Your task to perform on an android device: Open settings Image 0: 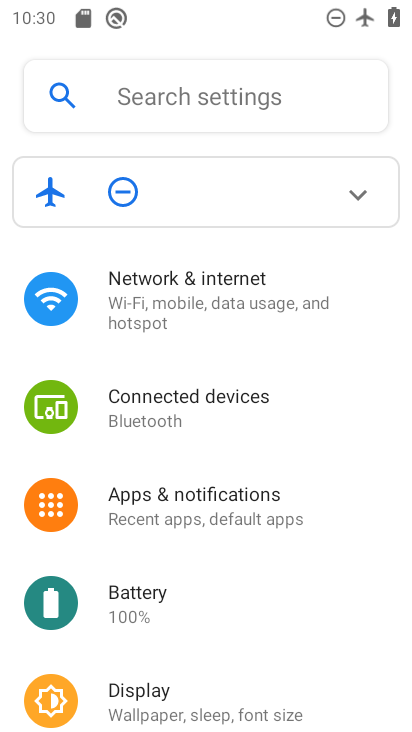
Step 0: drag from (328, 593) to (308, 379)
Your task to perform on an android device: Open settings Image 1: 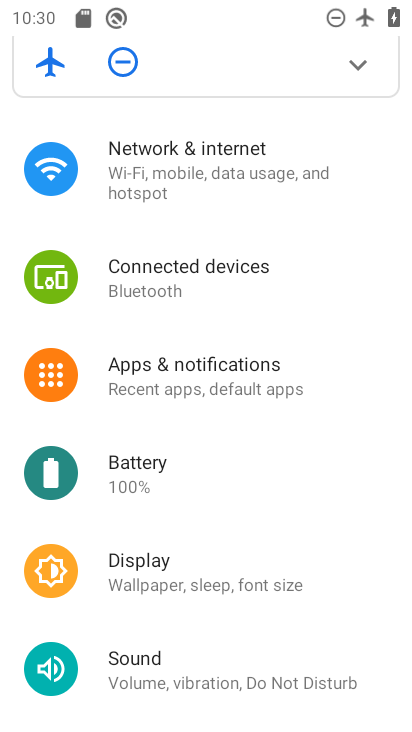
Step 1: task complete